Your task to perform on an android device: Show me productivity apps on the Play Store Image 0: 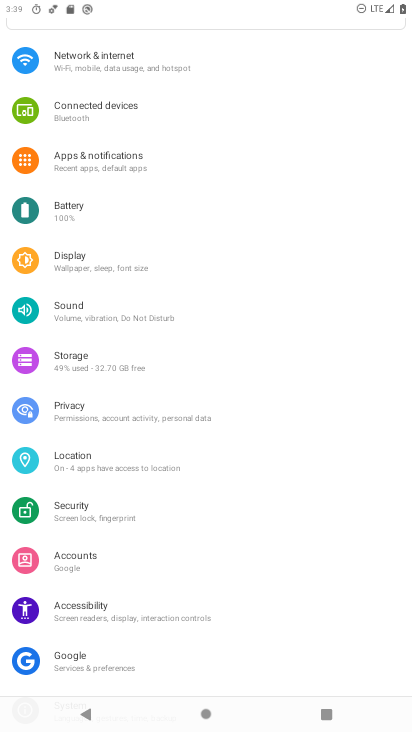
Step 0: press home button
Your task to perform on an android device: Show me productivity apps on the Play Store Image 1: 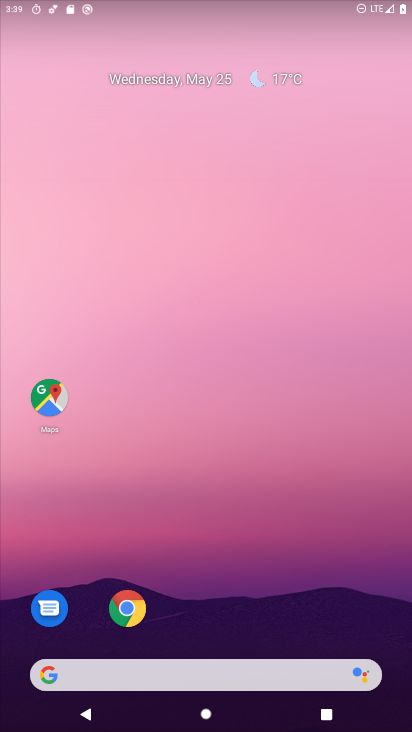
Step 1: drag from (247, 573) to (236, 149)
Your task to perform on an android device: Show me productivity apps on the Play Store Image 2: 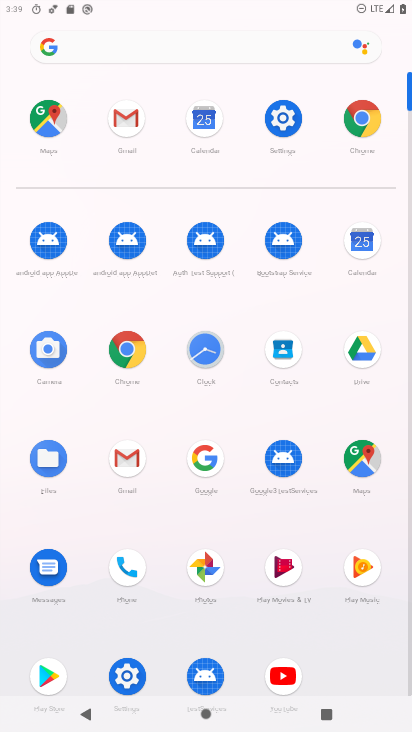
Step 2: click (44, 683)
Your task to perform on an android device: Show me productivity apps on the Play Store Image 3: 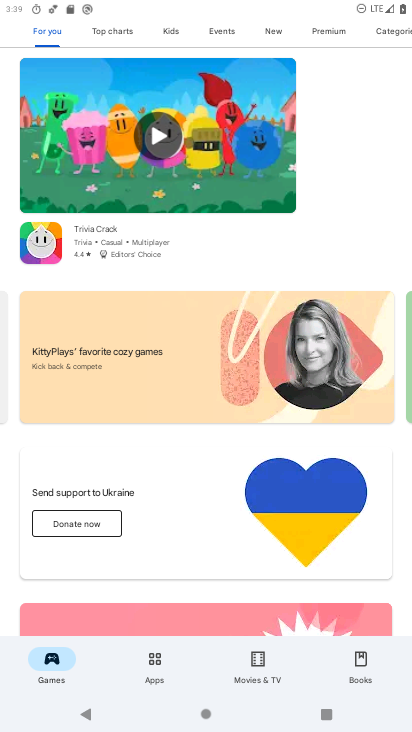
Step 3: drag from (237, 227) to (230, 490)
Your task to perform on an android device: Show me productivity apps on the Play Store Image 4: 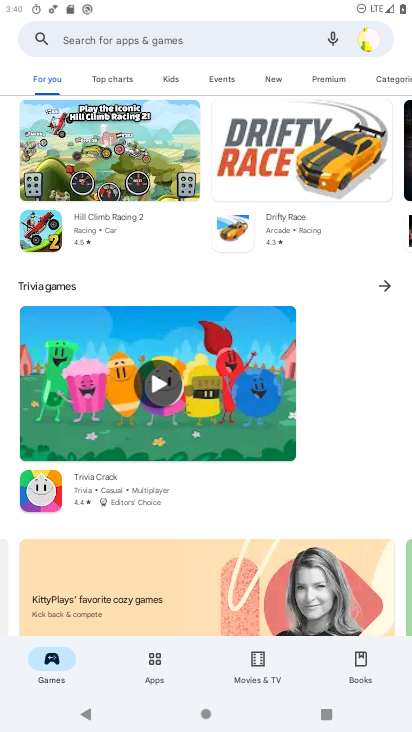
Step 4: click (133, 663)
Your task to perform on an android device: Show me productivity apps on the Play Store Image 5: 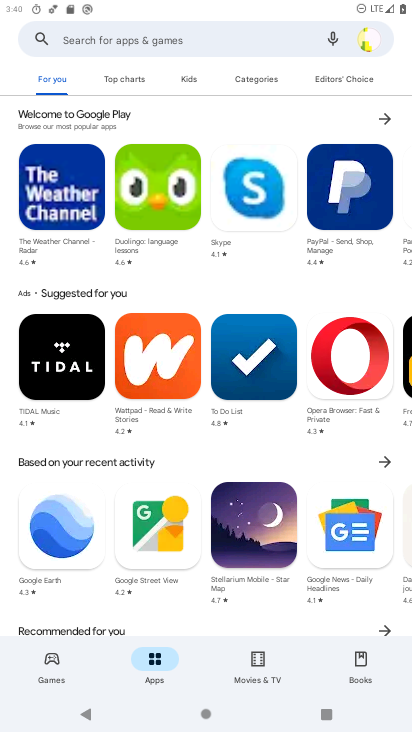
Step 5: task complete